Your task to perform on an android device: Go to notification settings Image 0: 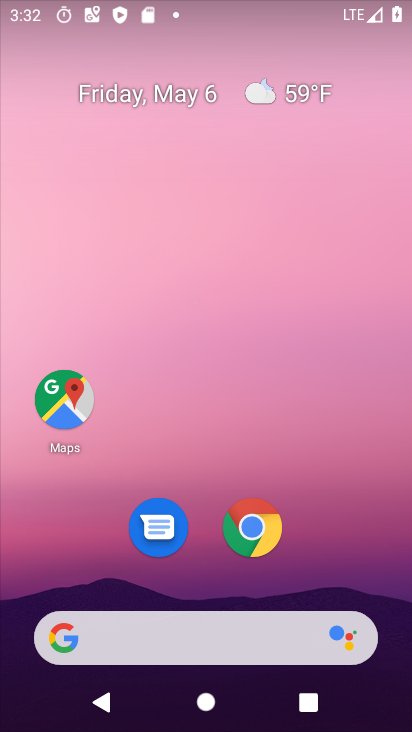
Step 0: drag from (297, 494) to (272, 73)
Your task to perform on an android device: Go to notification settings Image 1: 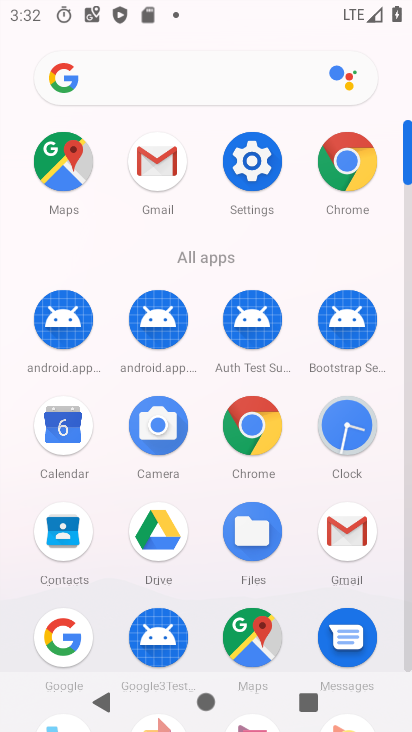
Step 1: click (240, 165)
Your task to perform on an android device: Go to notification settings Image 2: 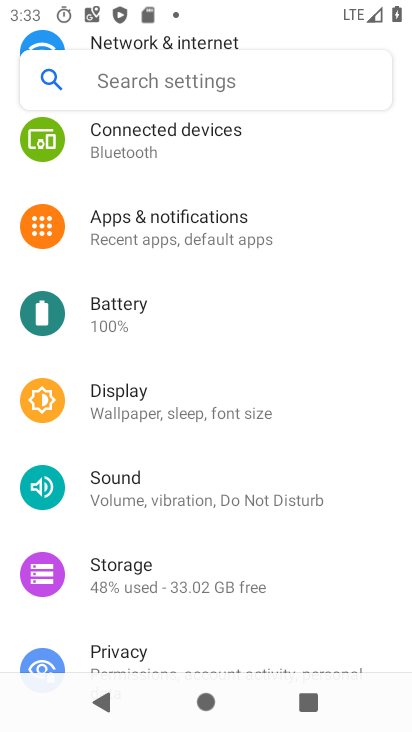
Step 2: click (119, 215)
Your task to perform on an android device: Go to notification settings Image 3: 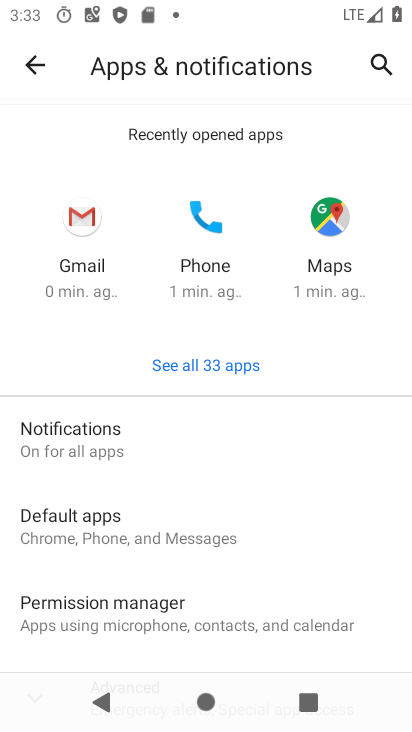
Step 3: click (86, 441)
Your task to perform on an android device: Go to notification settings Image 4: 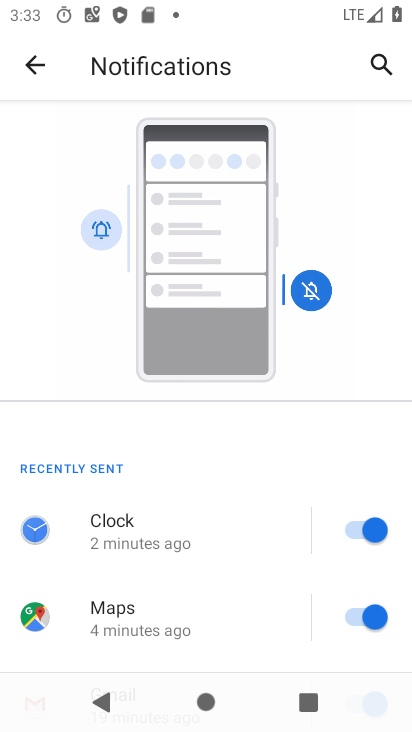
Step 4: task complete